Your task to perform on an android device: Open battery settings Image 0: 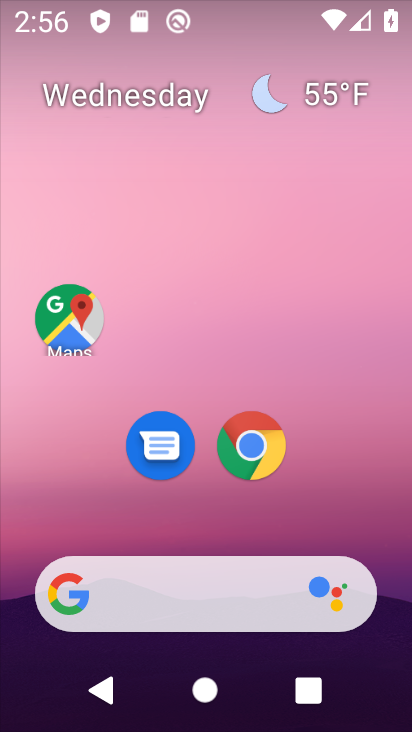
Step 0: drag from (324, 507) to (180, 56)
Your task to perform on an android device: Open battery settings Image 1: 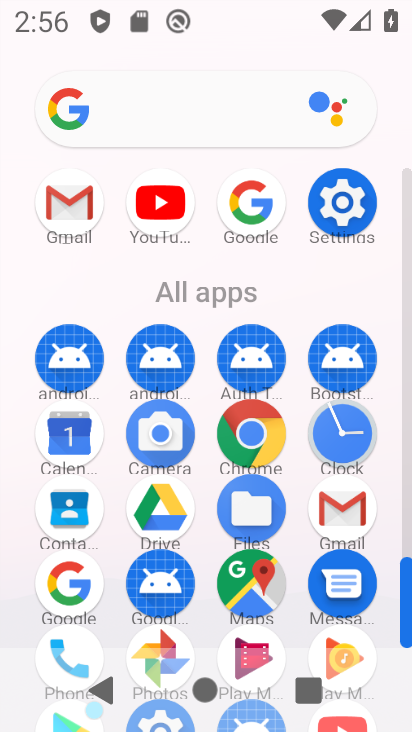
Step 1: click (328, 212)
Your task to perform on an android device: Open battery settings Image 2: 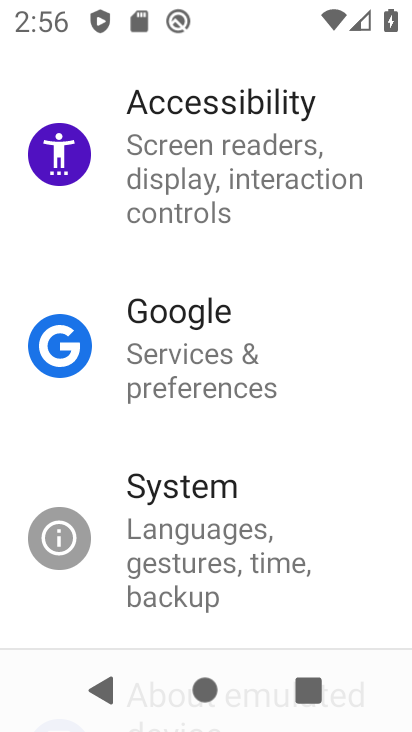
Step 2: drag from (228, 214) to (300, 504)
Your task to perform on an android device: Open battery settings Image 3: 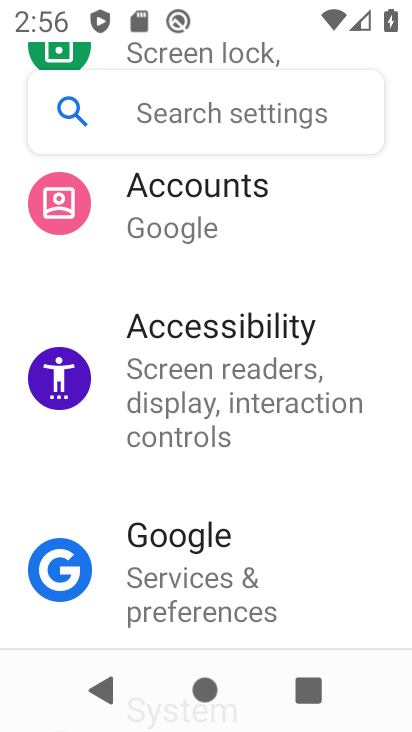
Step 3: drag from (371, 266) to (393, 372)
Your task to perform on an android device: Open battery settings Image 4: 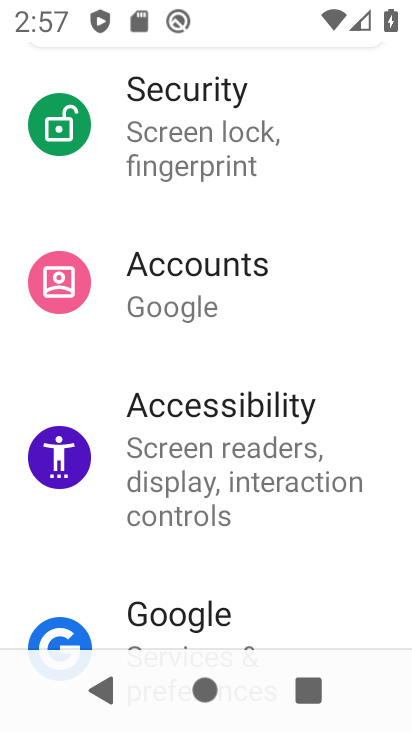
Step 4: drag from (343, 276) to (411, 572)
Your task to perform on an android device: Open battery settings Image 5: 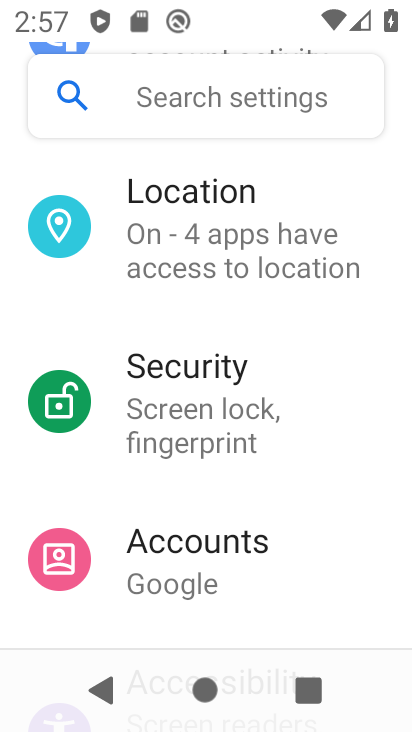
Step 5: drag from (354, 369) to (354, 691)
Your task to perform on an android device: Open battery settings Image 6: 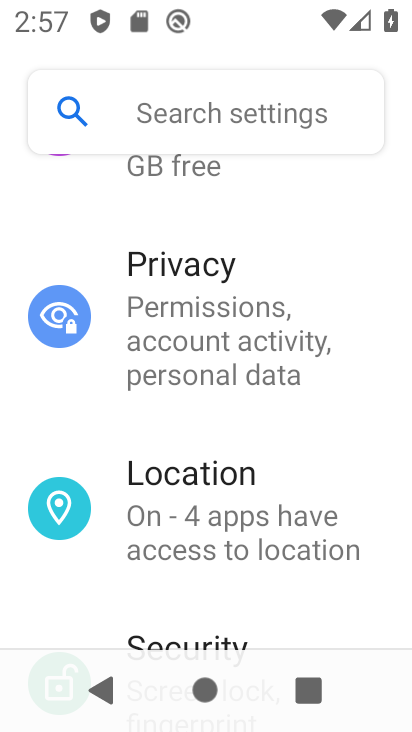
Step 6: drag from (368, 226) to (353, 556)
Your task to perform on an android device: Open battery settings Image 7: 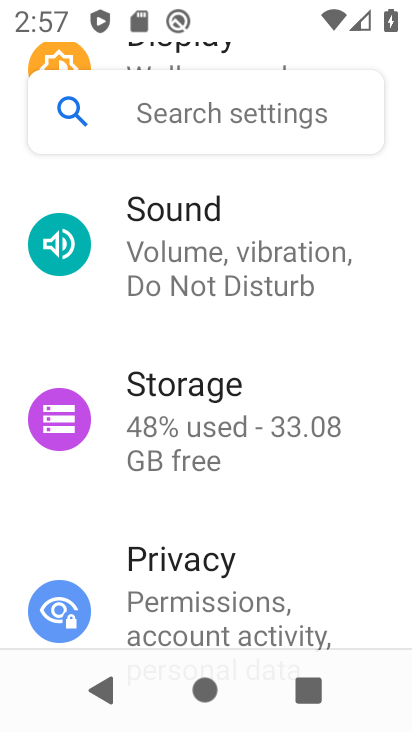
Step 7: drag from (341, 195) to (336, 556)
Your task to perform on an android device: Open battery settings Image 8: 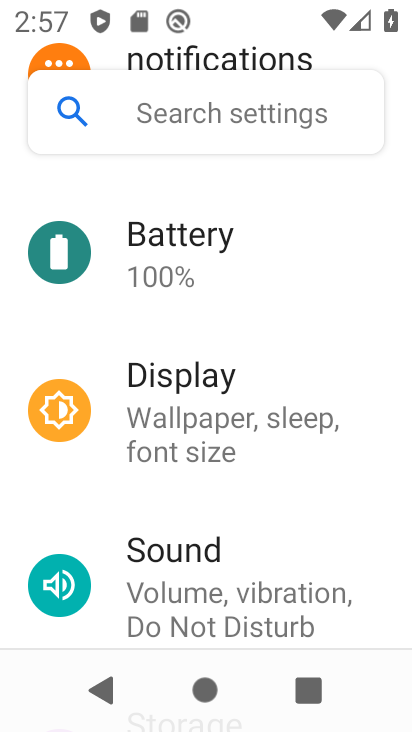
Step 8: click (184, 227)
Your task to perform on an android device: Open battery settings Image 9: 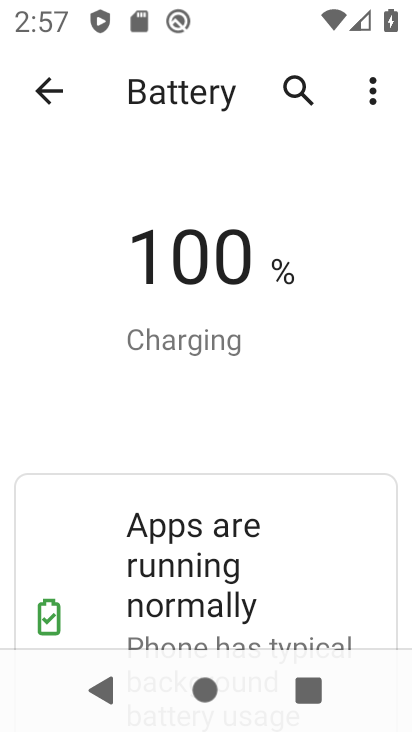
Step 9: task complete